Your task to perform on an android device: What's the weather going to be tomorrow? Image 0: 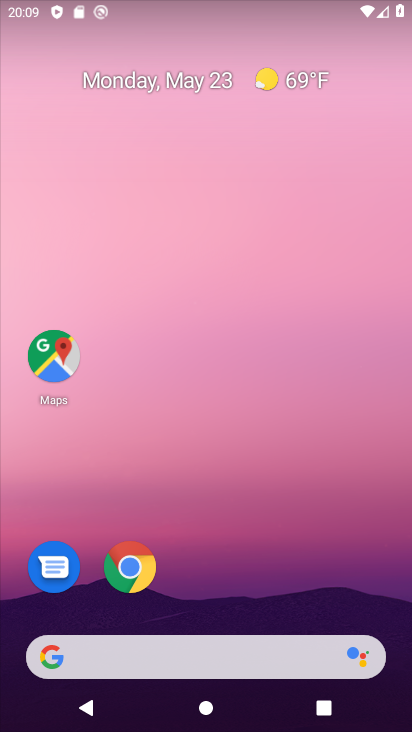
Step 0: click (293, 82)
Your task to perform on an android device: What's the weather going to be tomorrow? Image 1: 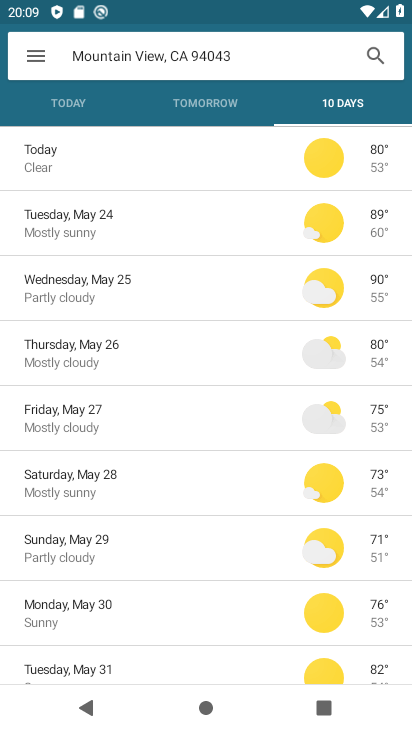
Step 1: click (196, 102)
Your task to perform on an android device: What's the weather going to be tomorrow? Image 2: 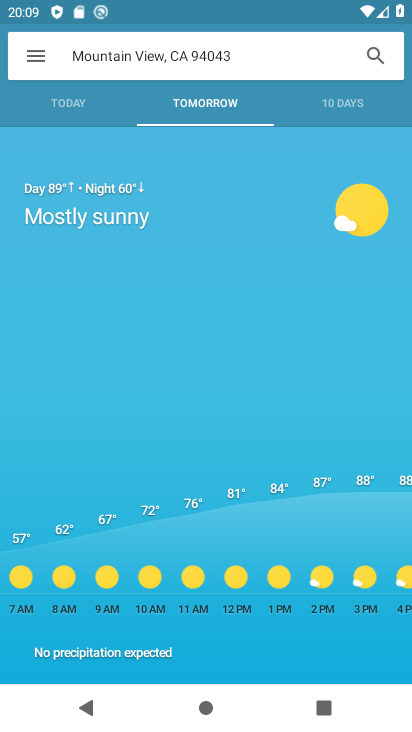
Step 2: task complete